Your task to perform on an android device: turn on notifications settings in the gmail app Image 0: 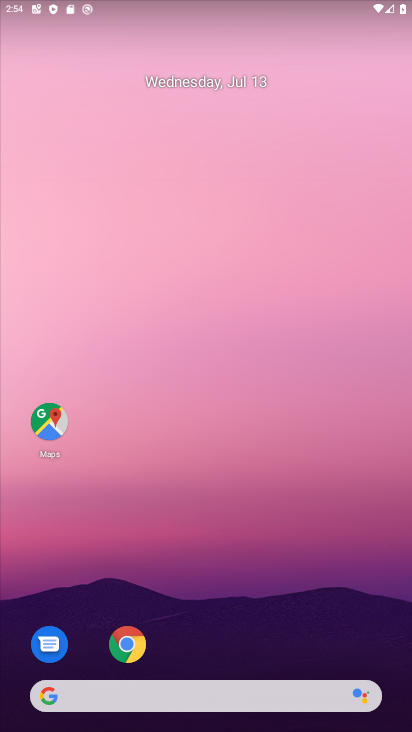
Step 0: drag from (308, 661) to (229, 8)
Your task to perform on an android device: turn on notifications settings in the gmail app Image 1: 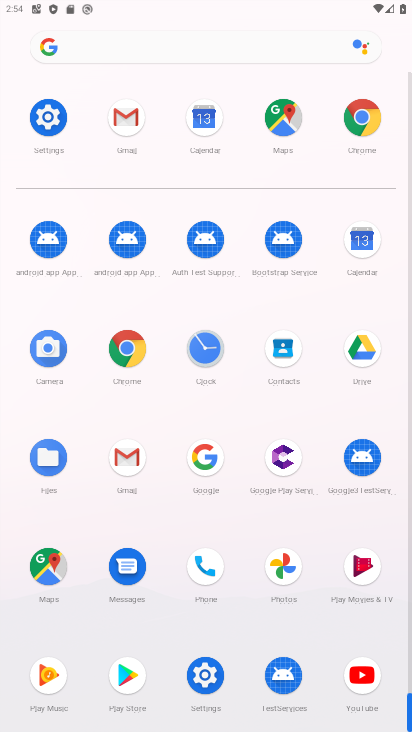
Step 1: click (123, 115)
Your task to perform on an android device: turn on notifications settings in the gmail app Image 2: 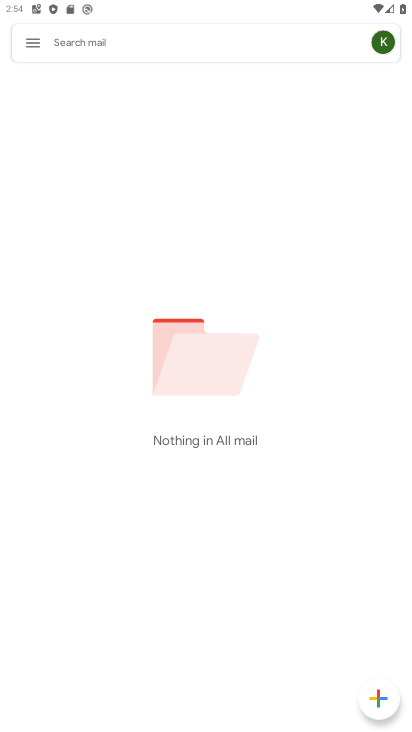
Step 2: click (36, 45)
Your task to perform on an android device: turn on notifications settings in the gmail app Image 3: 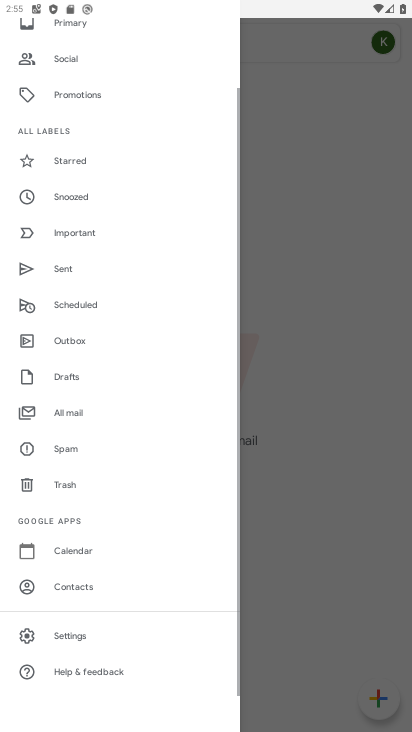
Step 3: click (92, 637)
Your task to perform on an android device: turn on notifications settings in the gmail app Image 4: 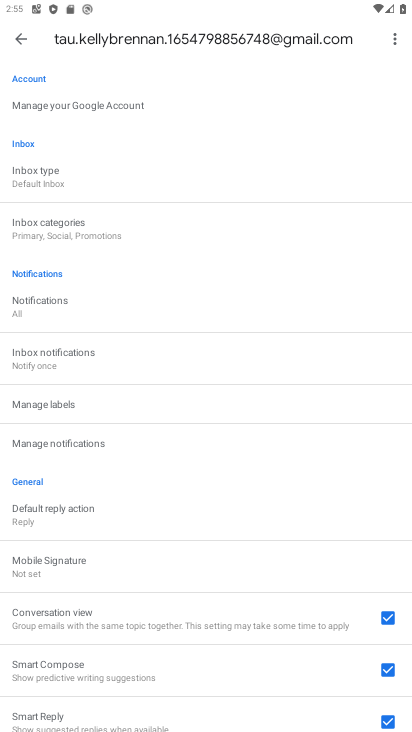
Step 4: click (104, 449)
Your task to perform on an android device: turn on notifications settings in the gmail app Image 5: 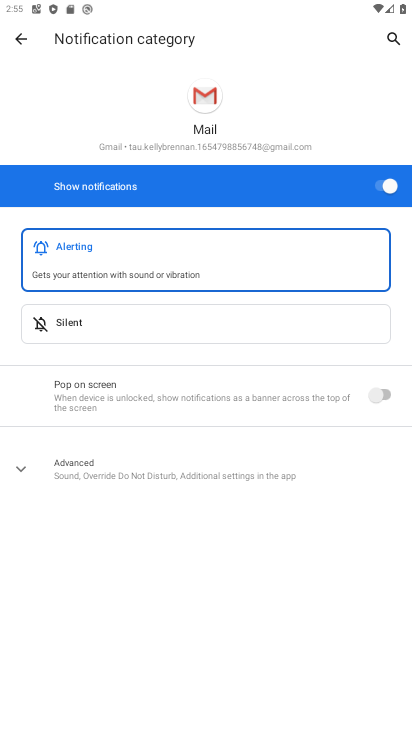
Step 5: task complete